Your task to perform on an android device: What is the news today? Image 0: 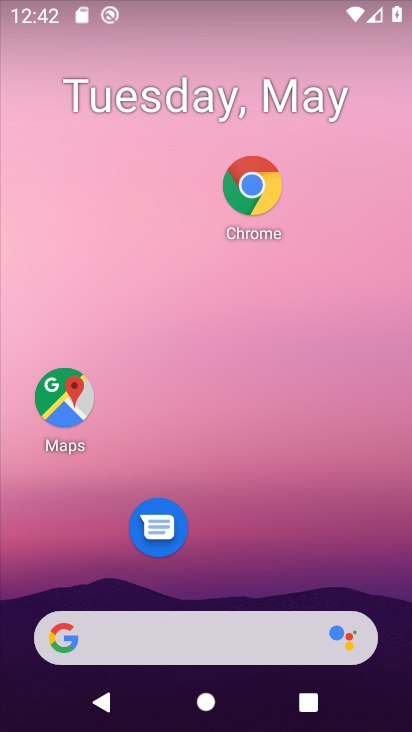
Step 0: click (197, 625)
Your task to perform on an android device: What is the news today? Image 1: 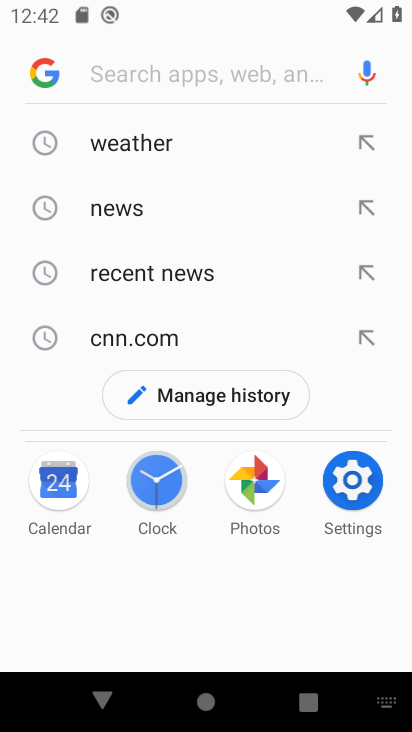
Step 1: click (132, 199)
Your task to perform on an android device: What is the news today? Image 2: 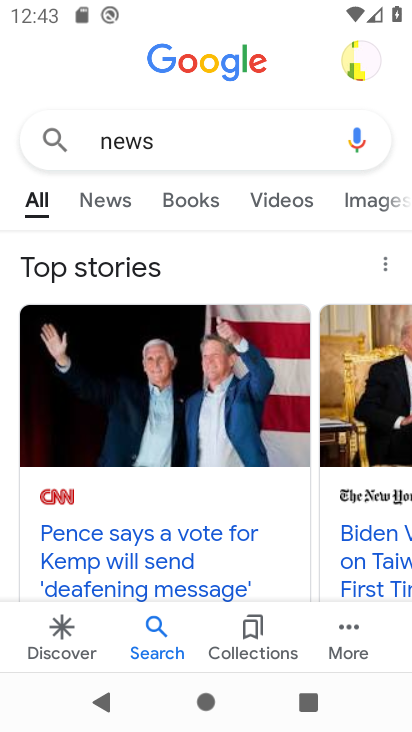
Step 2: task complete